Your task to perform on an android device: change notifications settings Image 0: 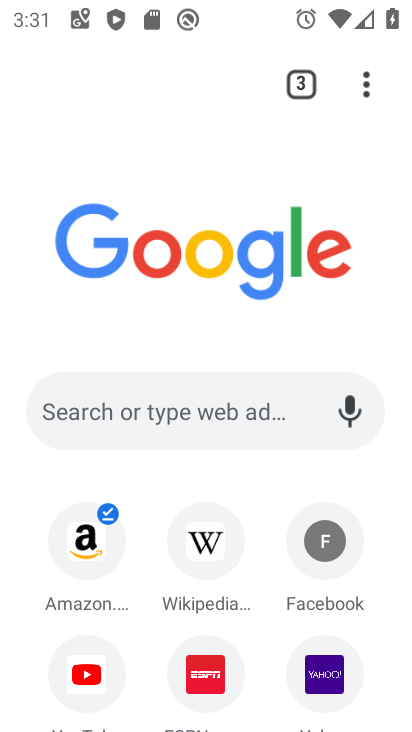
Step 0: press home button
Your task to perform on an android device: change notifications settings Image 1: 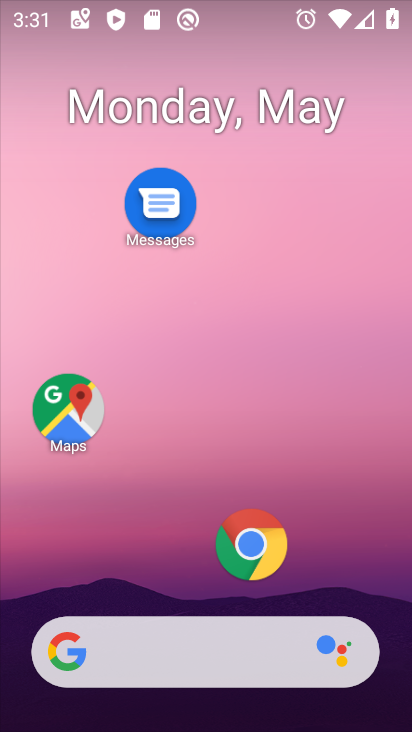
Step 1: drag from (181, 576) to (228, 293)
Your task to perform on an android device: change notifications settings Image 2: 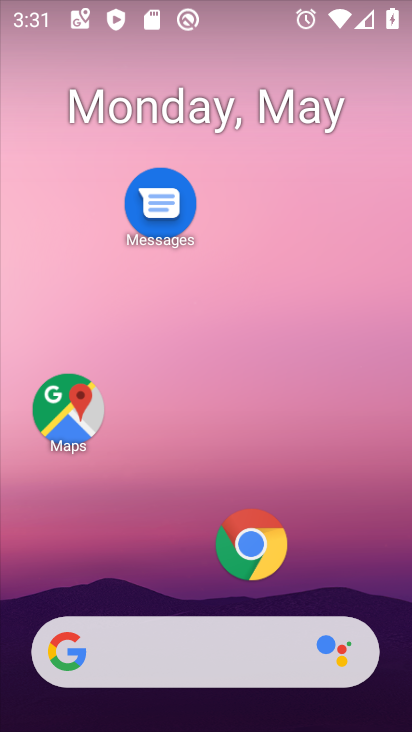
Step 2: drag from (183, 575) to (226, 262)
Your task to perform on an android device: change notifications settings Image 3: 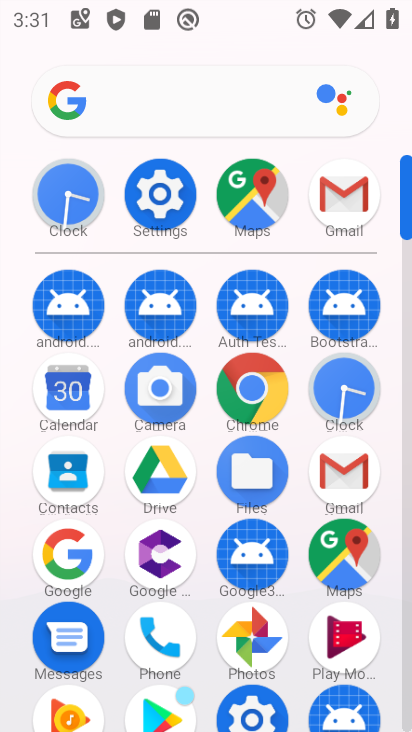
Step 3: click (186, 197)
Your task to perform on an android device: change notifications settings Image 4: 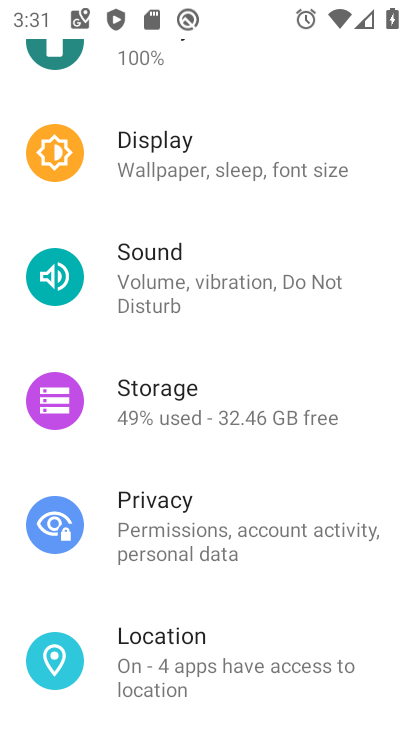
Step 4: drag from (246, 244) to (277, 455)
Your task to perform on an android device: change notifications settings Image 5: 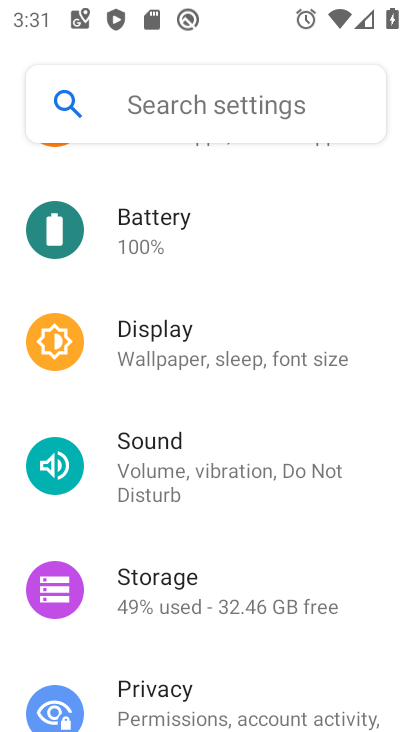
Step 5: drag from (261, 233) to (280, 363)
Your task to perform on an android device: change notifications settings Image 6: 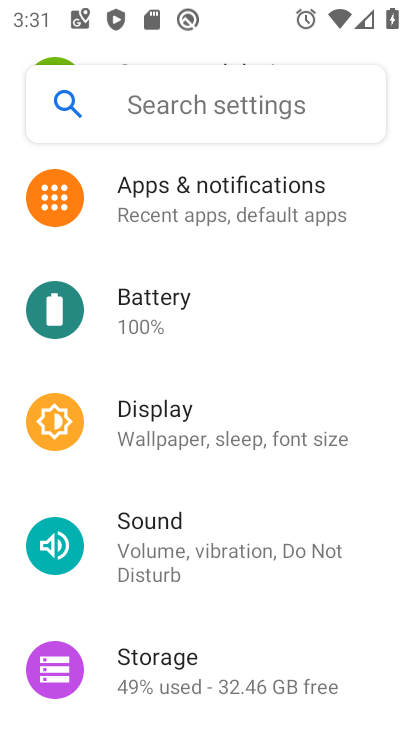
Step 6: click (263, 212)
Your task to perform on an android device: change notifications settings Image 7: 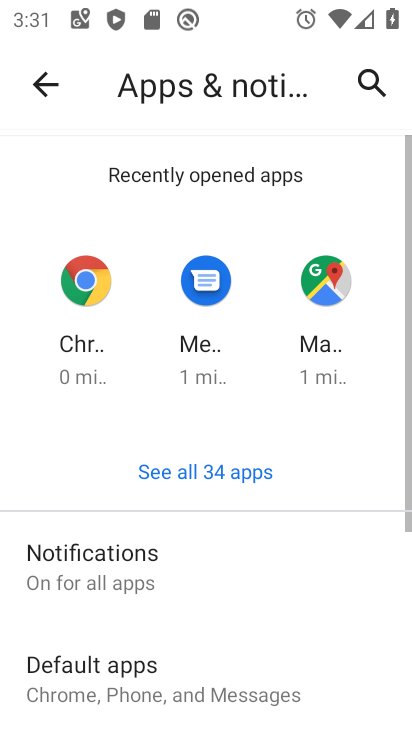
Step 7: click (173, 581)
Your task to perform on an android device: change notifications settings Image 8: 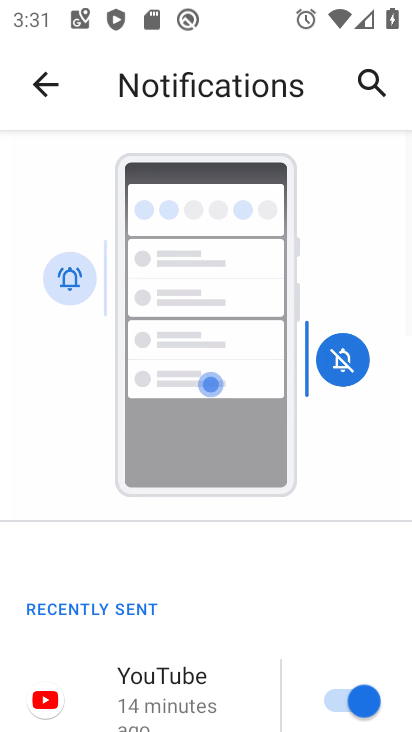
Step 8: drag from (173, 581) to (192, 311)
Your task to perform on an android device: change notifications settings Image 9: 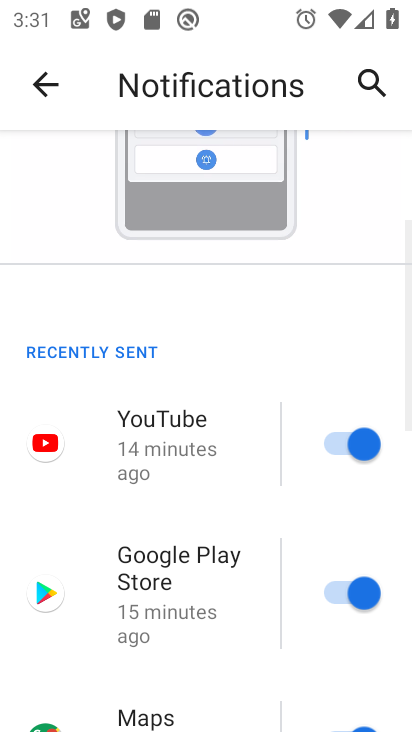
Step 9: drag from (217, 569) to (245, 317)
Your task to perform on an android device: change notifications settings Image 10: 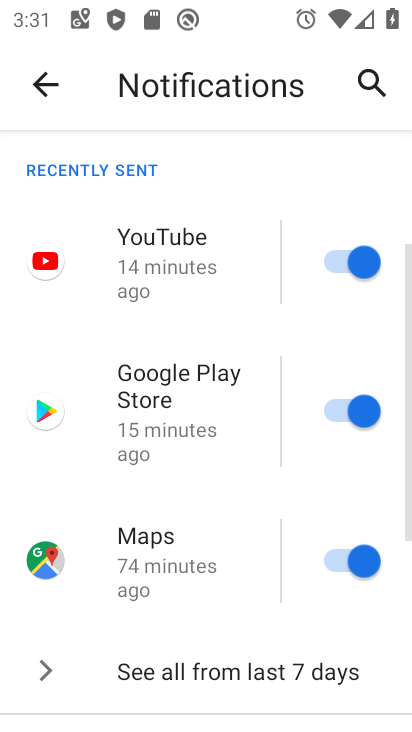
Step 10: click (243, 409)
Your task to perform on an android device: change notifications settings Image 11: 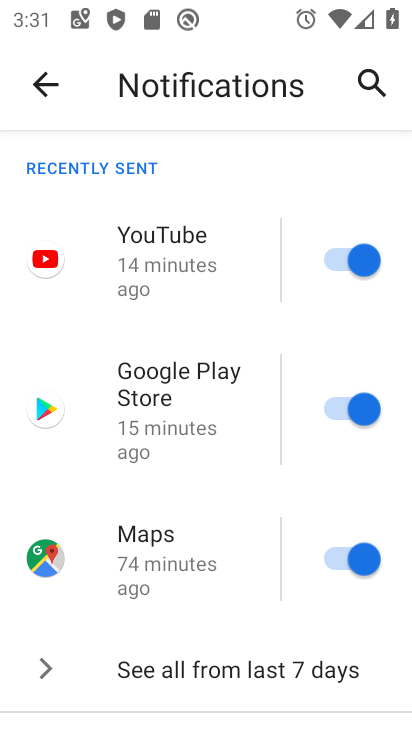
Step 11: drag from (248, 682) to (254, 339)
Your task to perform on an android device: change notifications settings Image 12: 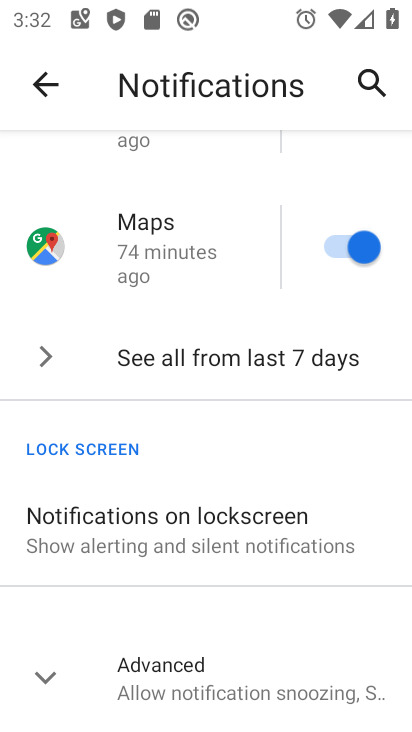
Step 12: drag from (267, 644) to (245, 396)
Your task to perform on an android device: change notifications settings Image 13: 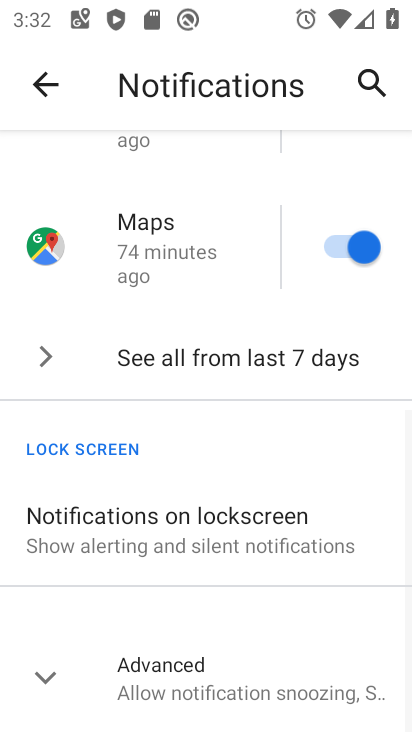
Step 13: click (253, 669)
Your task to perform on an android device: change notifications settings Image 14: 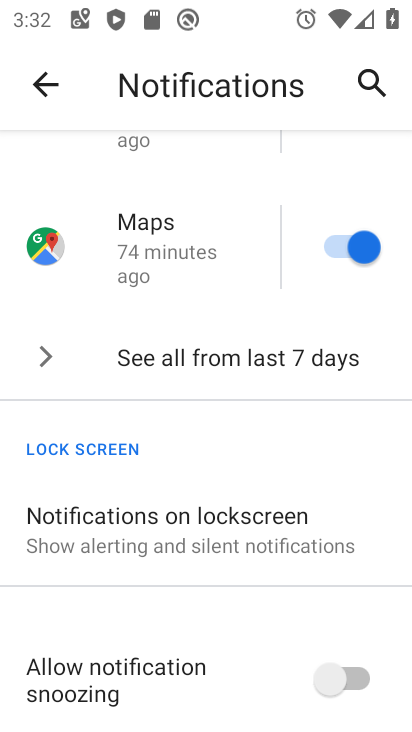
Step 14: drag from (222, 675) to (222, 502)
Your task to perform on an android device: change notifications settings Image 15: 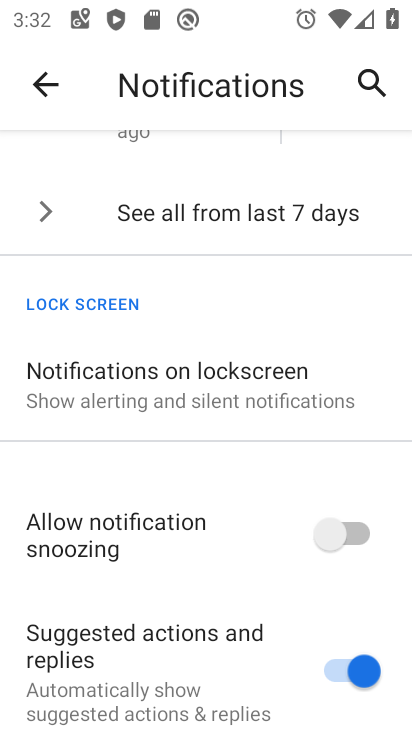
Step 15: click (218, 402)
Your task to perform on an android device: change notifications settings Image 16: 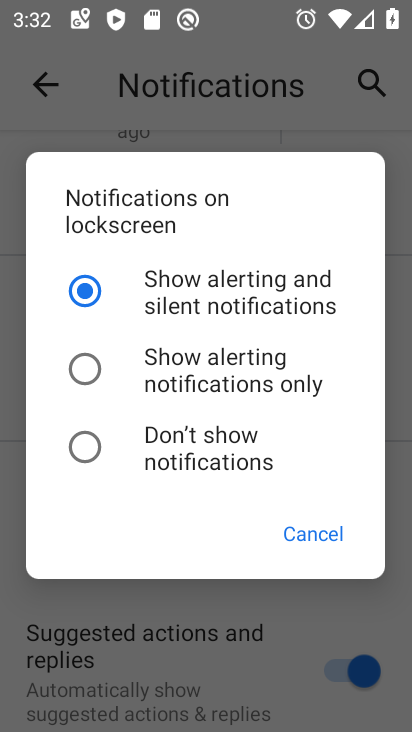
Step 16: click (204, 431)
Your task to perform on an android device: change notifications settings Image 17: 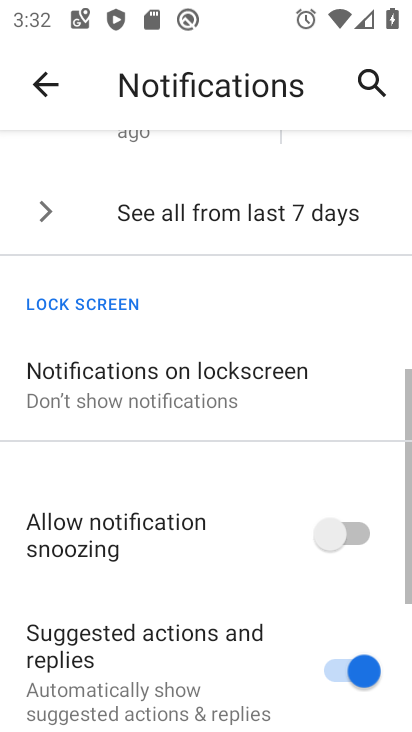
Step 17: task complete